Your task to perform on an android device: turn notification dots on Image 0: 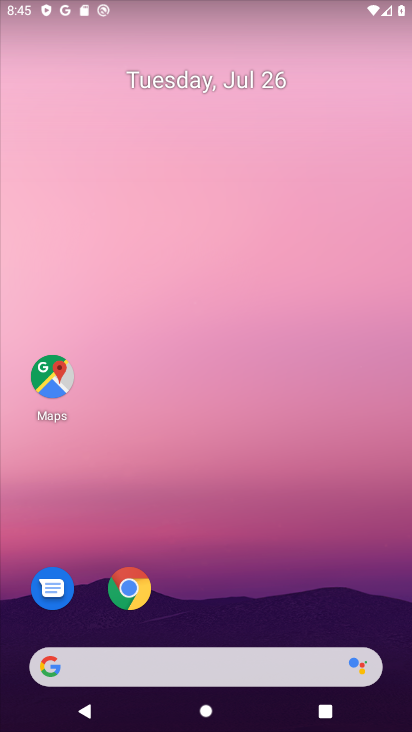
Step 0: press home button
Your task to perform on an android device: turn notification dots on Image 1: 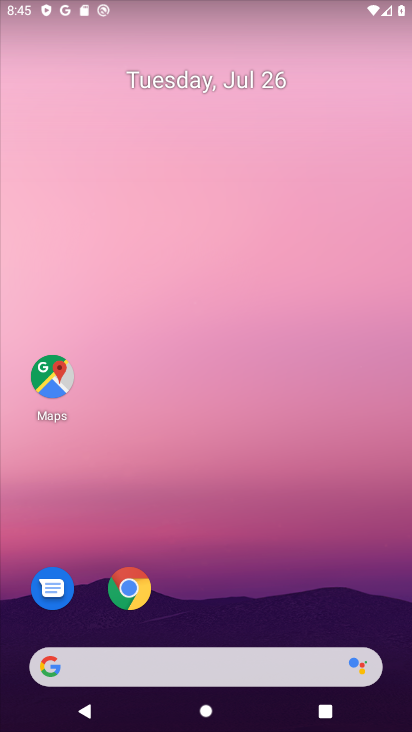
Step 1: click (233, 1)
Your task to perform on an android device: turn notification dots on Image 2: 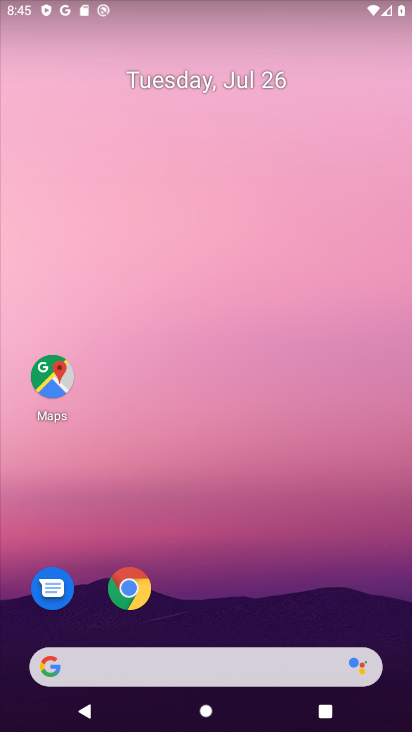
Step 2: drag from (228, 629) to (216, 1)
Your task to perform on an android device: turn notification dots on Image 3: 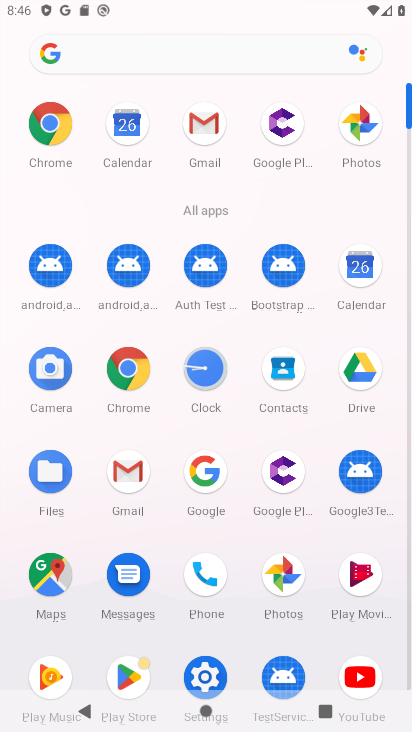
Step 3: click (202, 669)
Your task to perform on an android device: turn notification dots on Image 4: 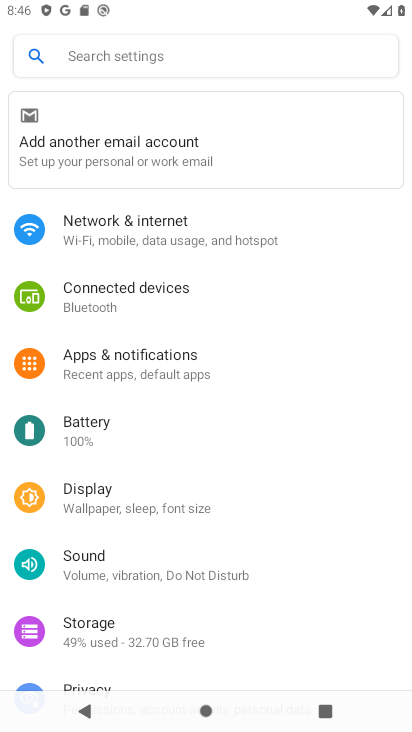
Step 4: click (223, 360)
Your task to perform on an android device: turn notification dots on Image 5: 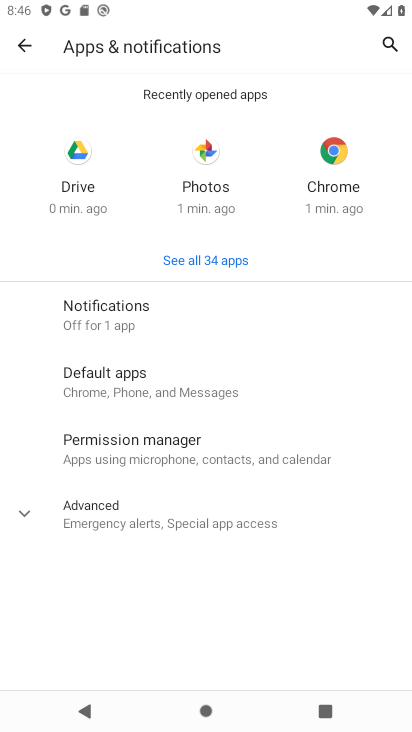
Step 5: click (172, 314)
Your task to perform on an android device: turn notification dots on Image 6: 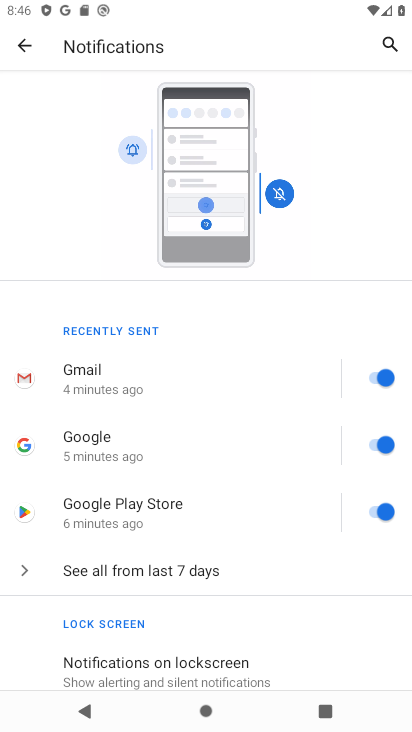
Step 6: drag from (232, 629) to (229, 118)
Your task to perform on an android device: turn notification dots on Image 7: 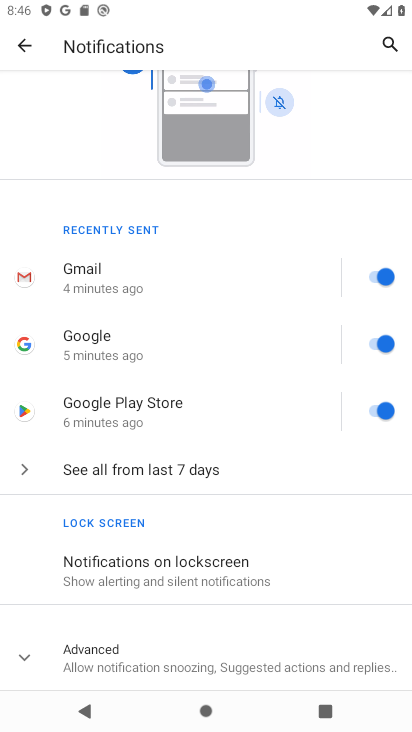
Step 7: click (24, 652)
Your task to perform on an android device: turn notification dots on Image 8: 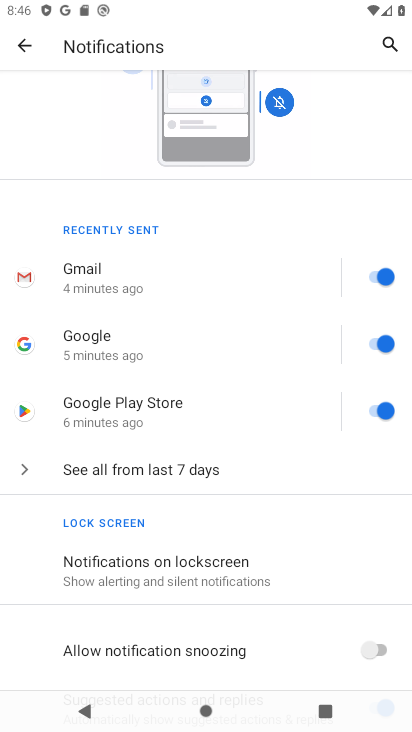
Step 8: task complete